Your task to perform on an android device: set default search engine in the chrome app Image 0: 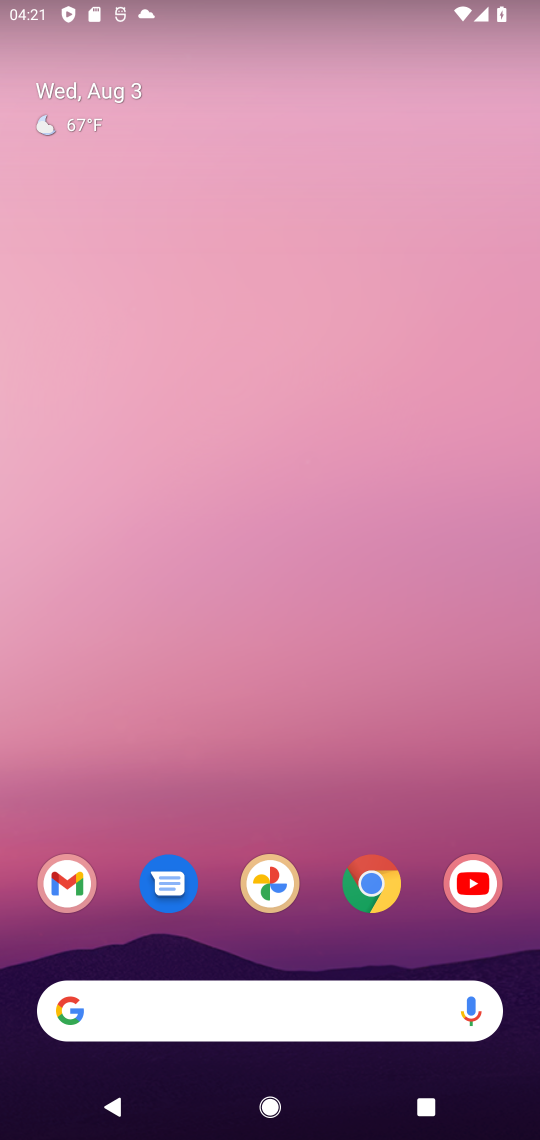
Step 0: drag from (295, 947) to (322, 105)
Your task to perform on an android device: set default search engine in the chrome app Image 1: 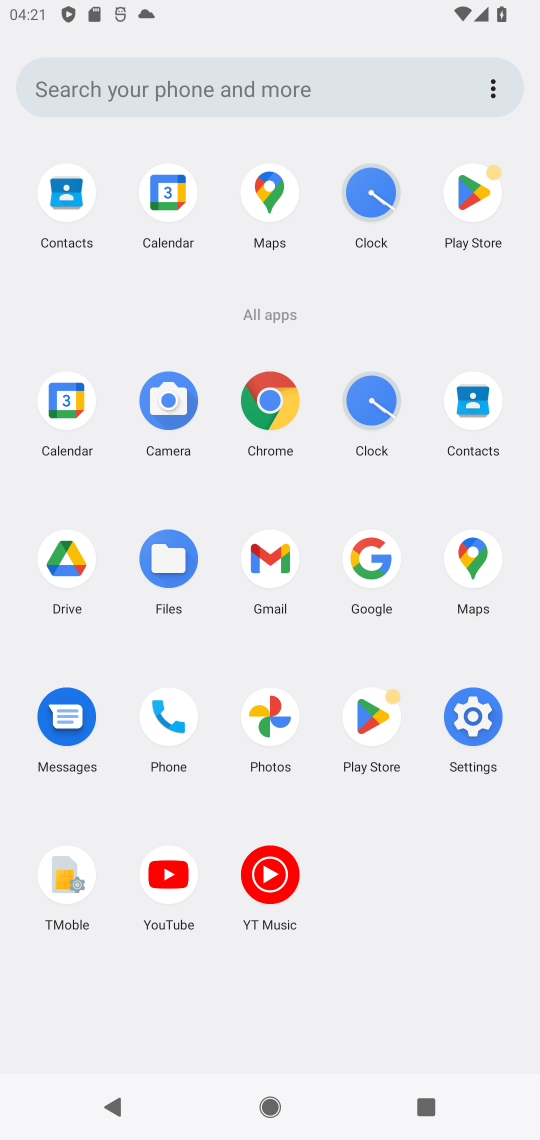
Step 1: click (273, 409)
Your task to perform on an android device: set default search engine in the chrome app Image 2: 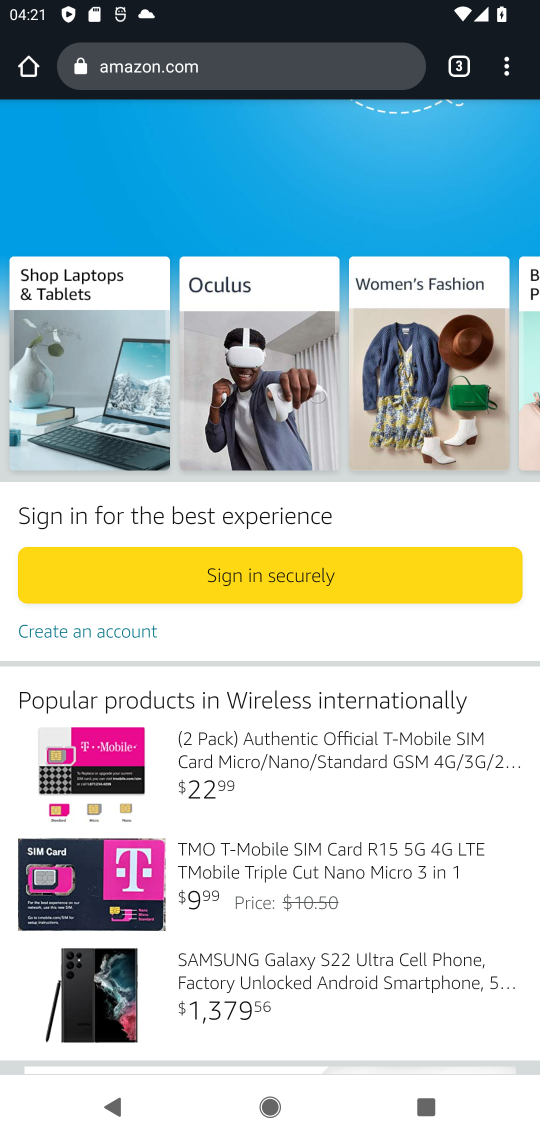
Step 2: click (506, 61)
Your task to perform on an android device: set default search engine in the chrome app Image 3: 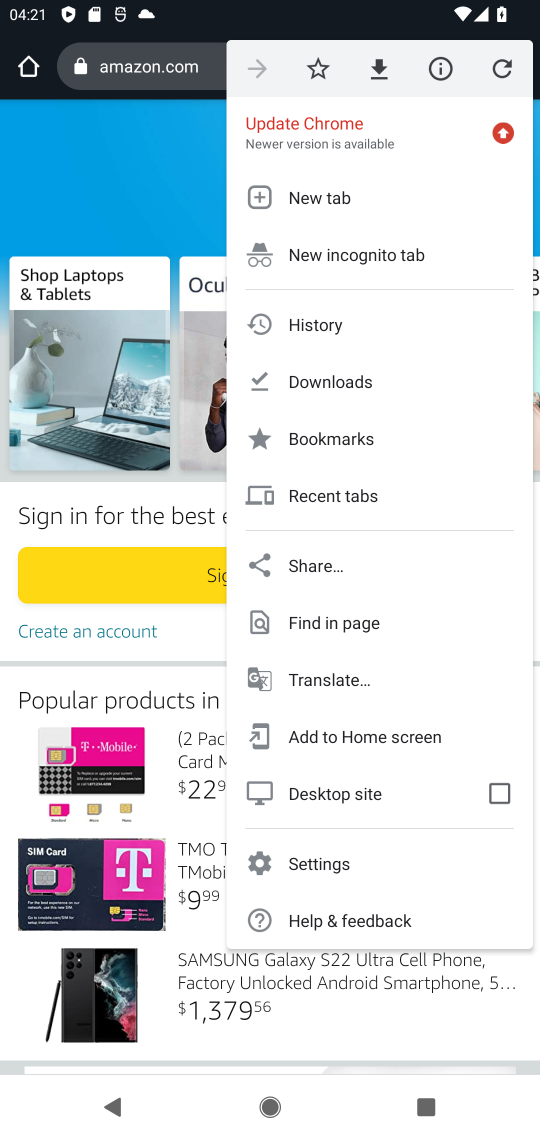
Step 3: click (330, 857)
Your task to perform on an android device: set default search engine in the chrome app Image 4: 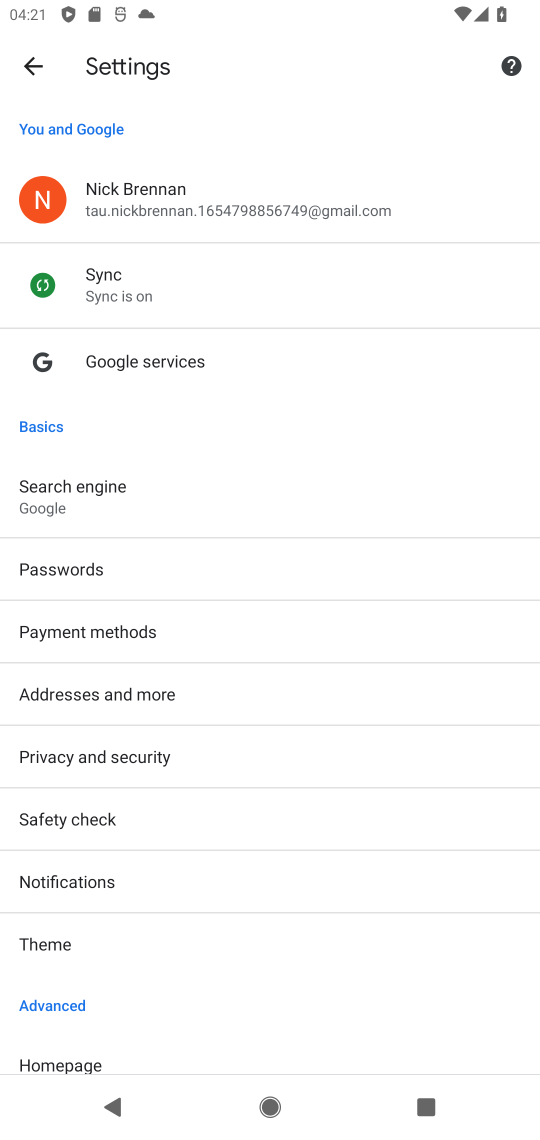
Step 4: click (97, 502)
Your task to perform on an android device: set default search engine in the chrome app Image 5: 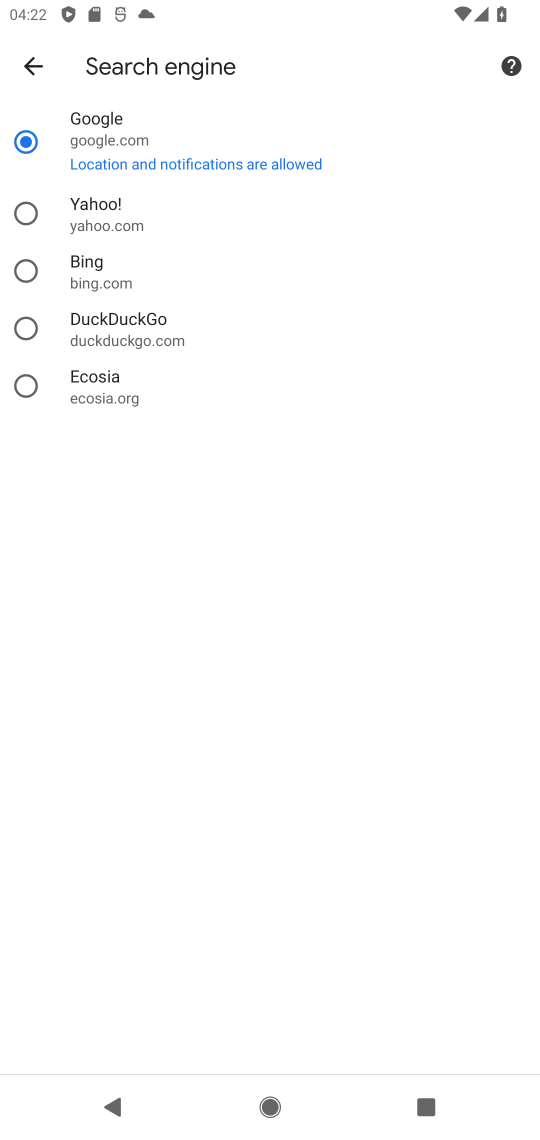
Step 5: task complete